Your task to perform on an android device: Open display settings Image 0: 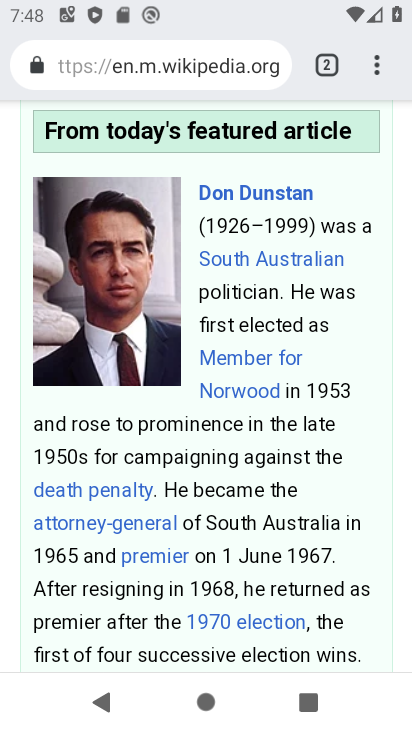
Step 0: press home button
Your task to perform on an android device: Open display settings Image 1: 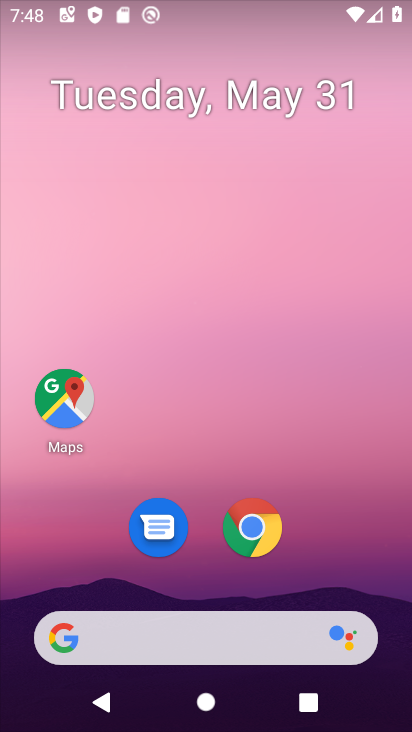
Step 1: drag from (311, 571) to (277, 146)
Your task to perform on an android device: Open display settings Image 2: 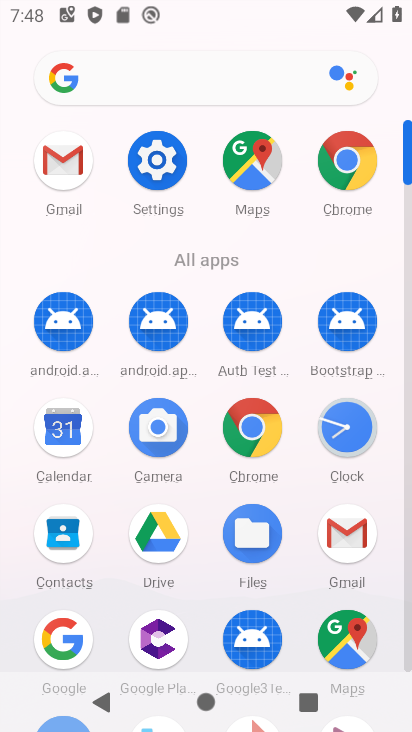
Step 2: click (164, 166)
Your task to perform on an android device: Open display settings Image 3: 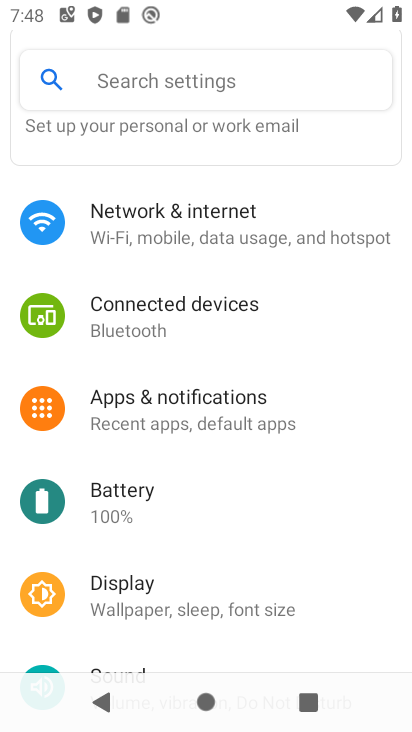
Step 3: drag from (198, 524) to (187, 275)
Your task to perform on an android device: Open display settings Image 4: 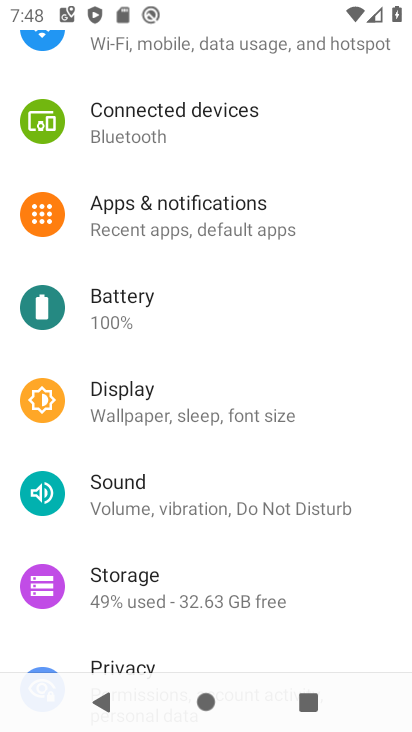
Step 4: click (123, 388)
Your task to perform on an android device: Open display settings Image 5: 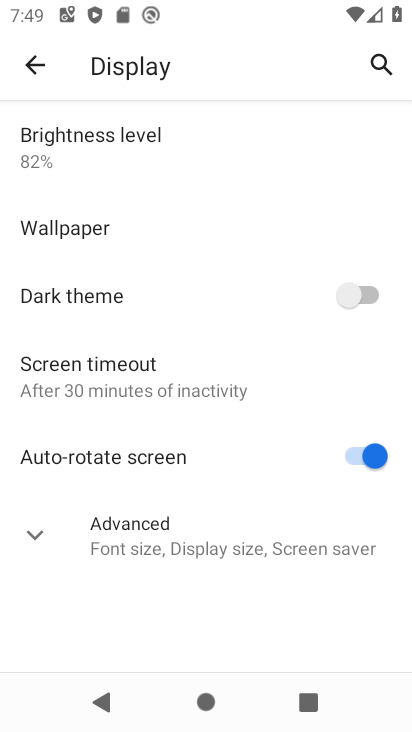
Step 5: task complete